Your task to perform on an android device: Search for macbook on costco, select the first entry, add it to the cart, then select checkout. Image 0: 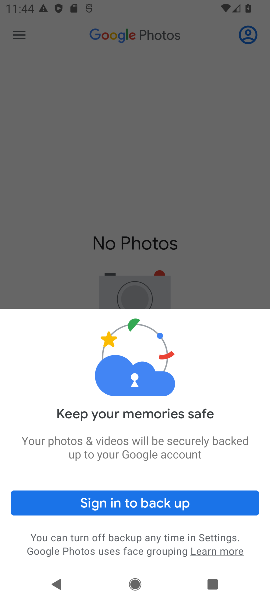
Step 0: task complete